Your task to perform on an android device: Open ESPN.com Image 0: 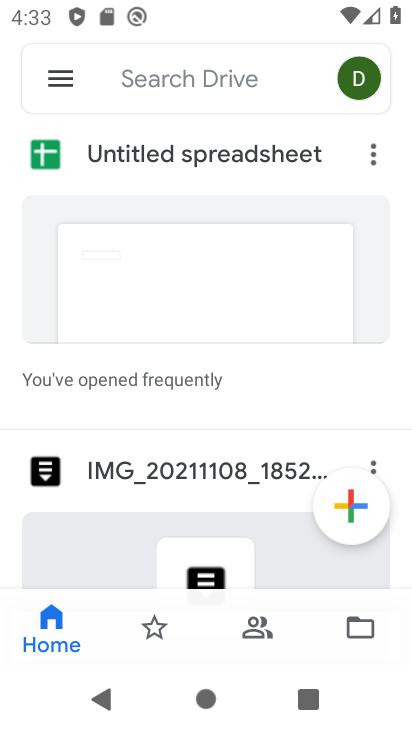
Step 0: press home button
Your task to perform on an android device: Open ESPN.com Image 1: 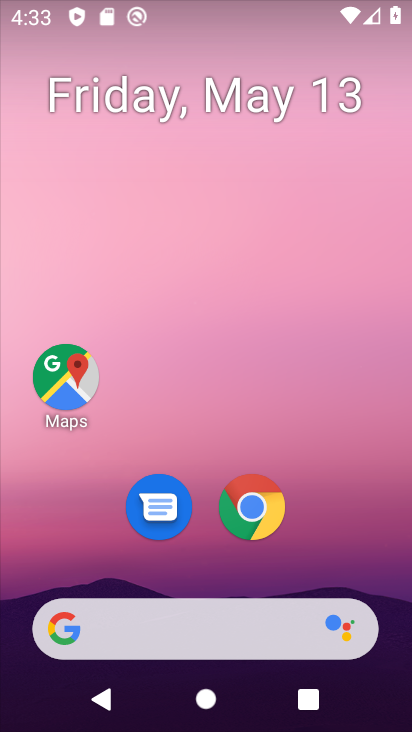
Step 1: click (252, 500)
Your task to perform on an android device: Open ESPN.com Image 2: 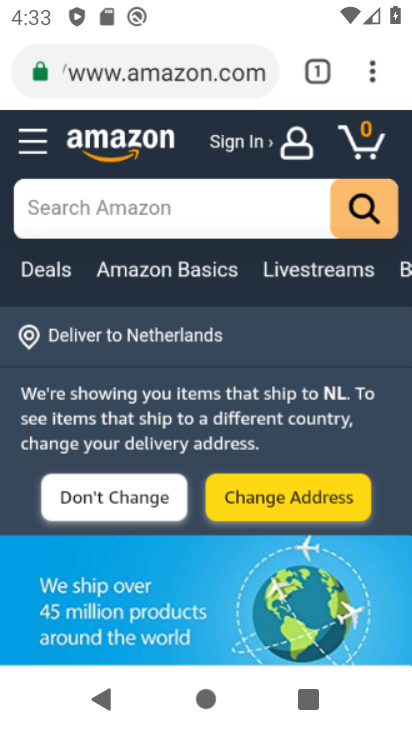
Step 2: click (302, 69)
Your task to perform on an android device: Open ESPN.com Image 3: 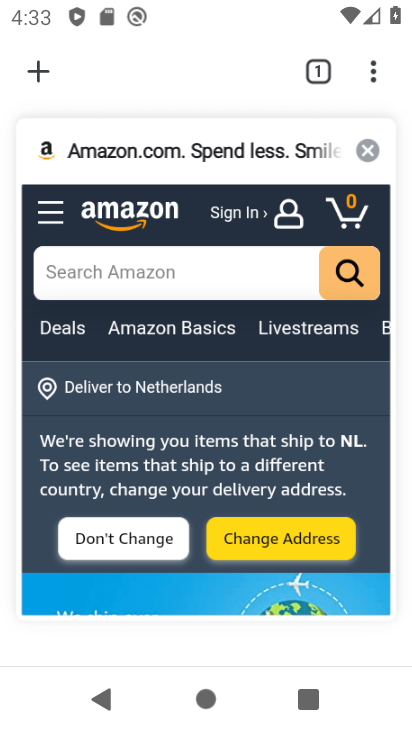
Step 3: click (37, 60)
Your task to perform on an android device: Open ESPN.com Image 4: 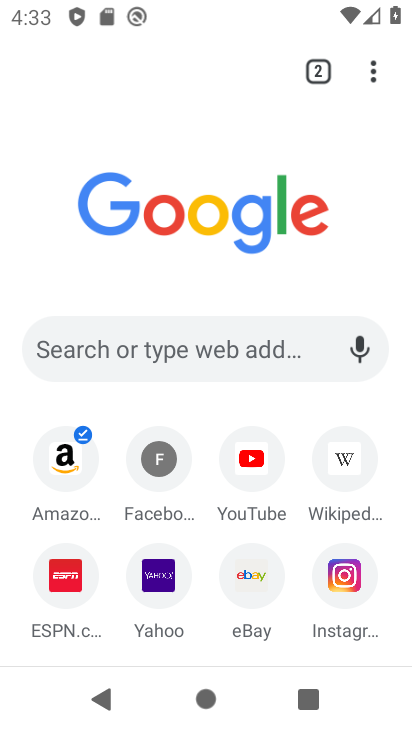
Step 4: click (75, 573)
Your task to perform on an android device: Open ESPN.com Image 5: 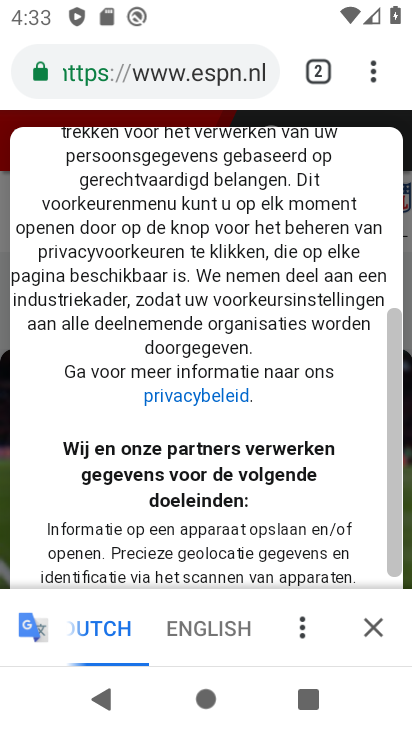
Step 5: task complete